Your task to perform on an android device: see tabs open on other devices in the chrome app Image 0: 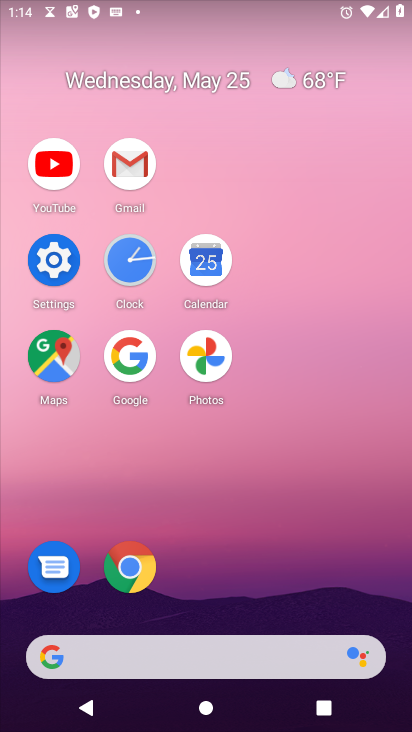
Step 0: click (143, 565)
Your task to perform on an android device: see tabs open on other devices in the chrome app Image 1: 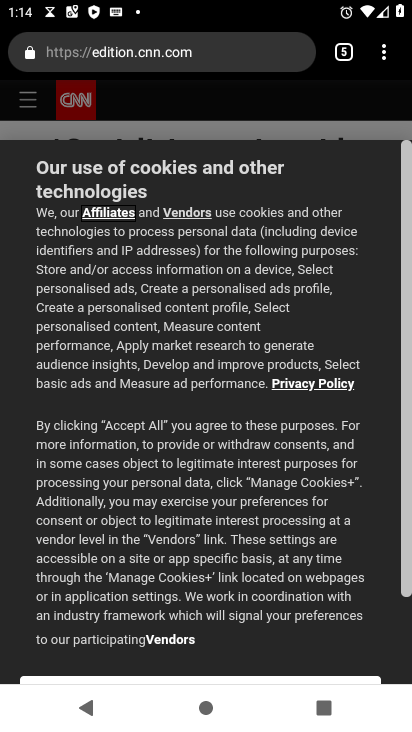
Step 1: click (390, 61)
Your task to perform on an android device: see tabs open on other devices in the chrome app Image 2: 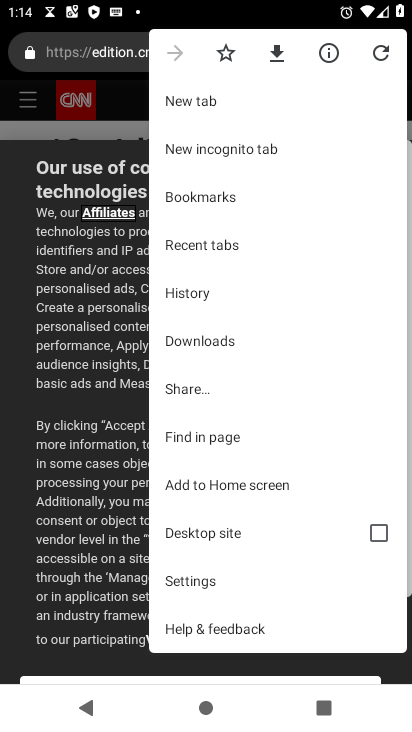
Step 2: click (259, 237)
Your task to perform on an android device: see tabs open on other devices in the chrome app Image 3: 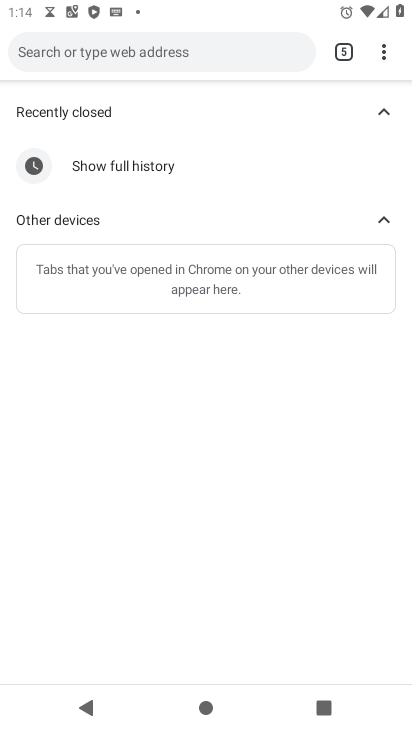
Step 3: click (98, 168)
Your task to perform on an android device: see tabs open on other devices in the chrome app Image 4: 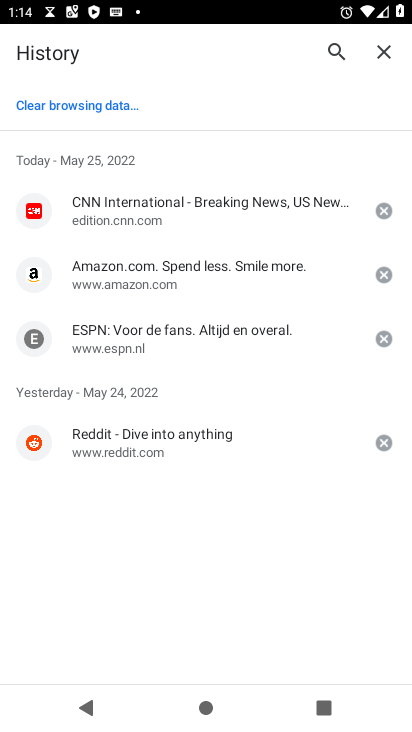
Step 4: task complete